Your task to perform on an android device: Open privacy settings Image 0: 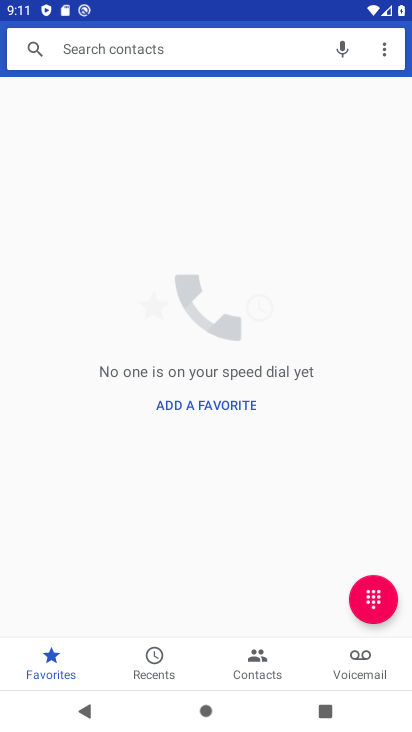
Step 0: press back button
Your task to perform on an android device: Open privacy settings Image 1: 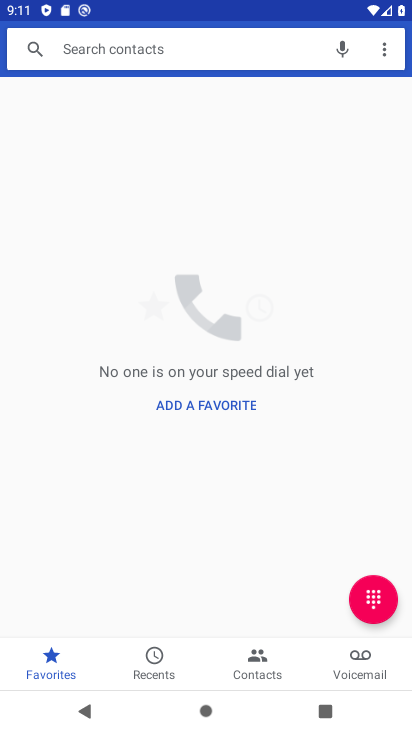
Step 1: press back button
Your task to perform on an android device: Open privacy settings Image 2: 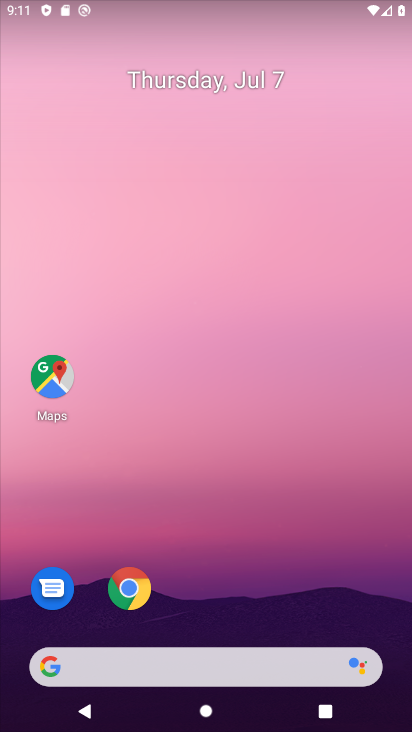
Step 2: drag from (249, 588) to (208, 279)
Your task to perform on an android device: Open privacy settings Image 3: 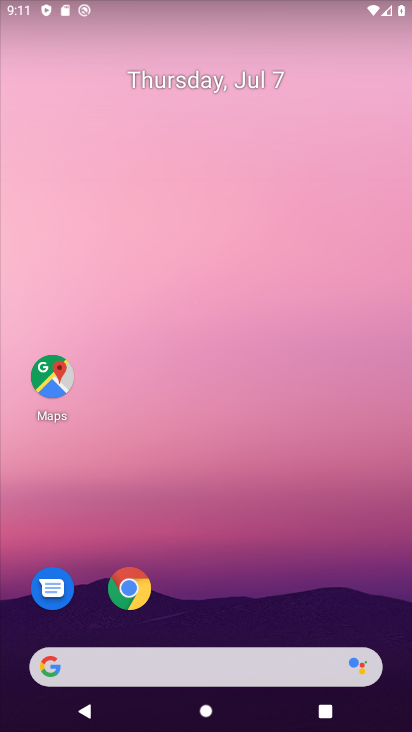
Step 3: drag from (245, 721) to (190, 308)
Your task to perform on an android device: Open privacy settings Image 4: 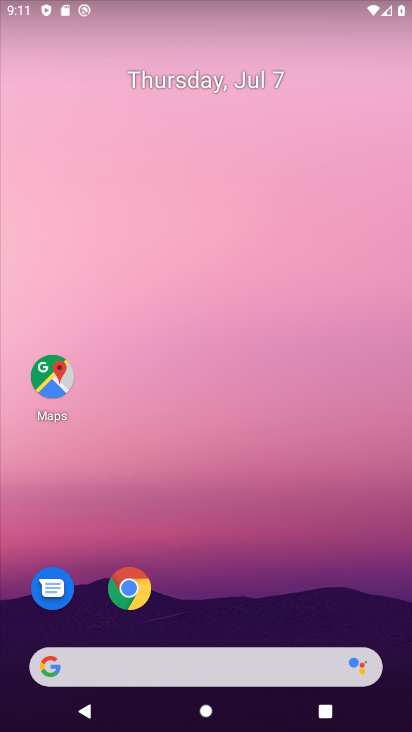
Step 4: drag from (271, 585) to (238, 191)
Your task to perform on an android device: Open privacy settings Image 5: 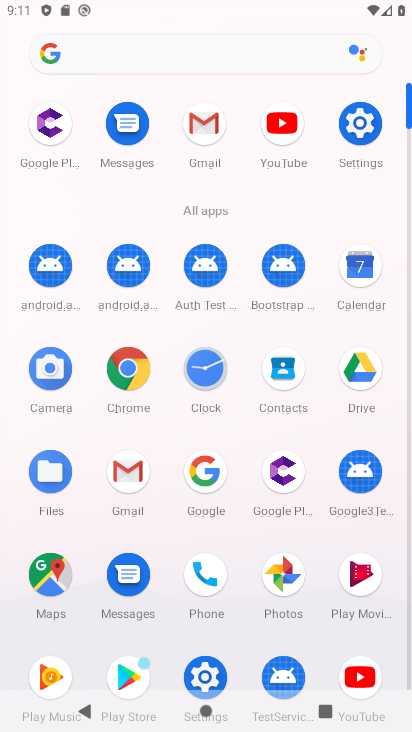
Step 5: click (357, 127)
Your task to perform on an android device: Open privacy settings Image 6: 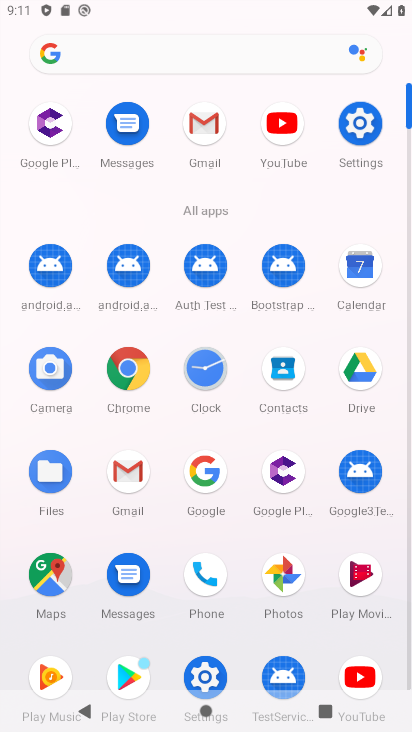
Step 6: click (359, 126)
Your task to perform on an android device: Open privacy settings Image 7: 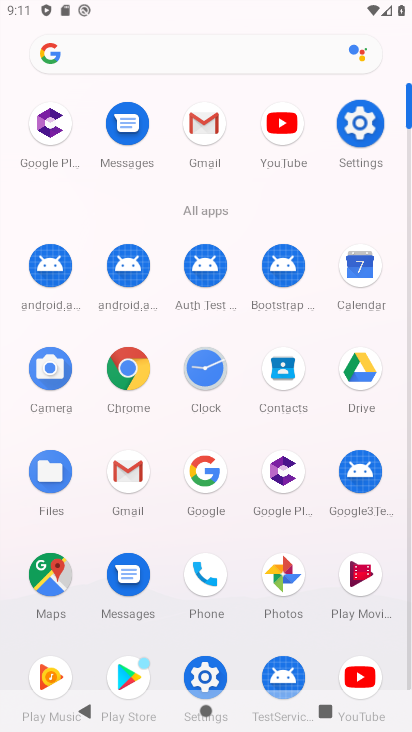
Step 7: click (359, 126)
Your task to perform on an android device: Open privacy settings Image 8: 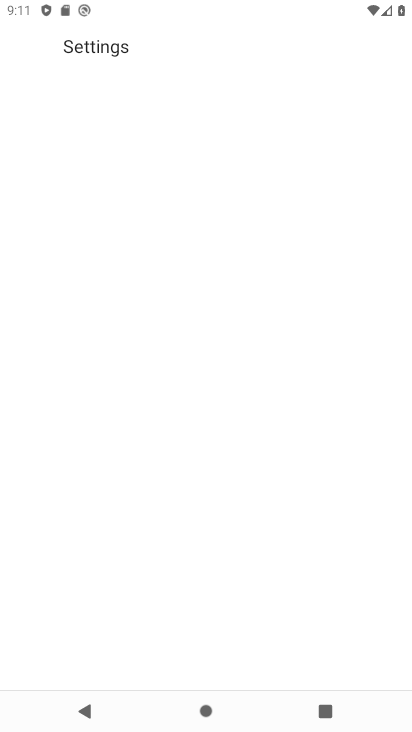
Step 8: click (360, 125)
Your task to perform on an android device: Open privacy settings Image 9: 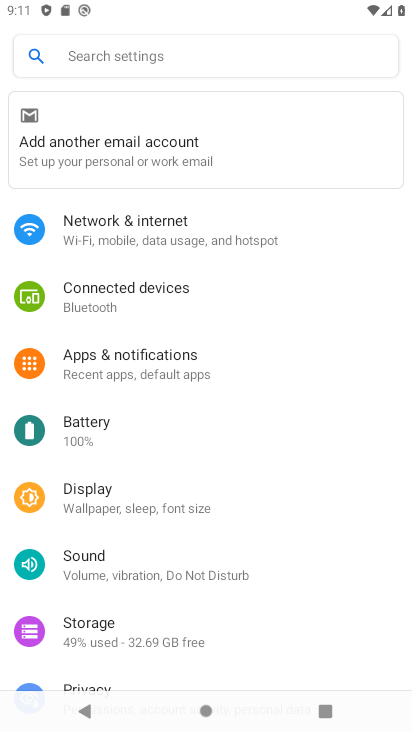
Step 9: drag from (168, 539) to (168, 321)
Your task to perform on an android device: Open privacy settings Image 10: 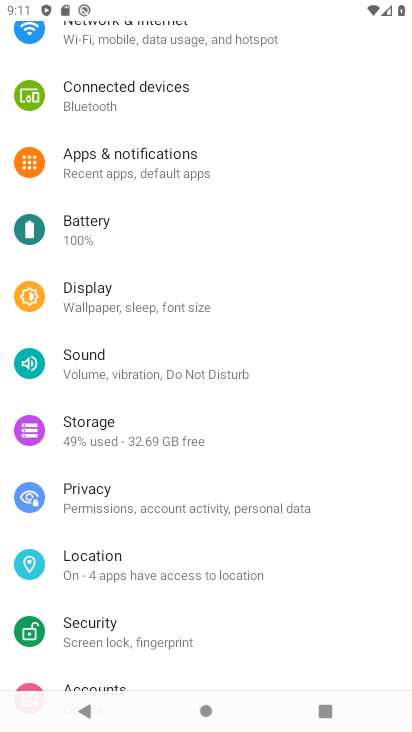
Step 10: click (97, 490)
Your task to perform on an android device: Open privacy settings Image 11: 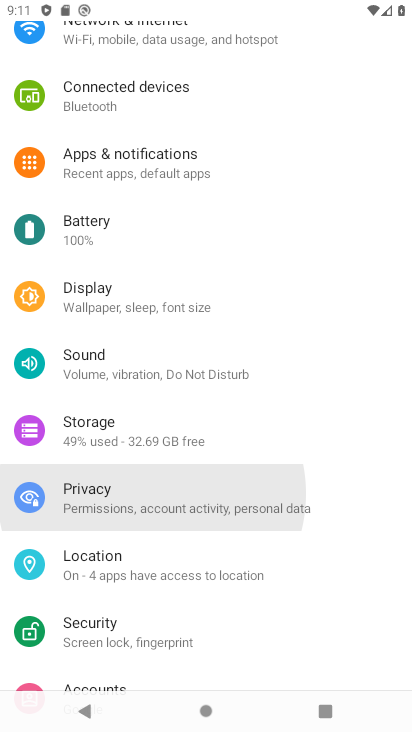
Step 11: click (104, 500)
Your task to perform on an android device: Open privacy settings Image 12: 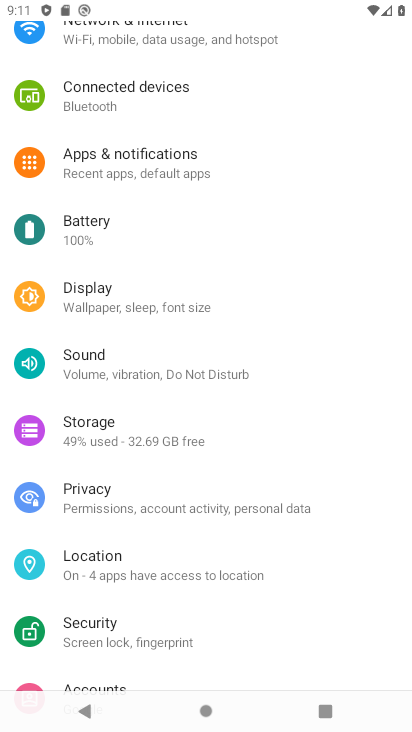
Step 12: click (106, 501)
Your task to perform on an android device: Open privacy settings Image 13: 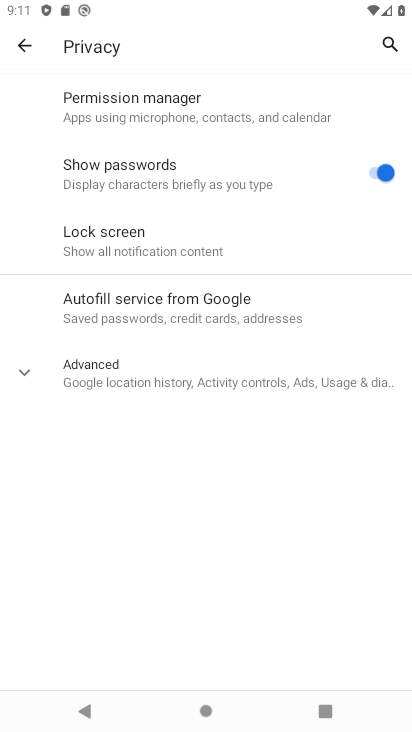
Step 13: click (29, 44)
Your task to perform on an android device: Open privacy settings Image 14: 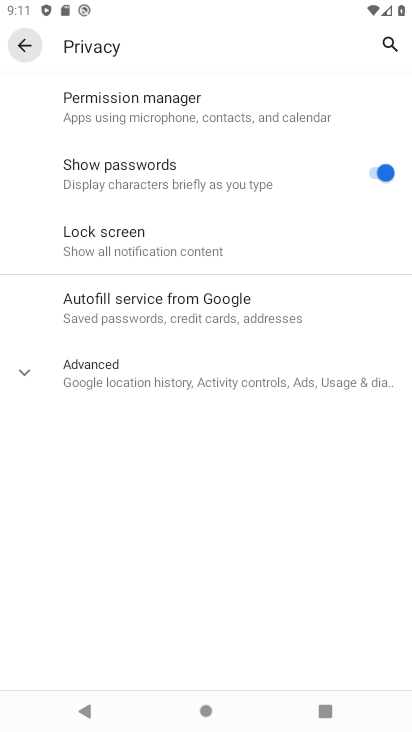
Step 14: click (29, 43)
Your task to perform on an android device: Open privacy settings Image 15: 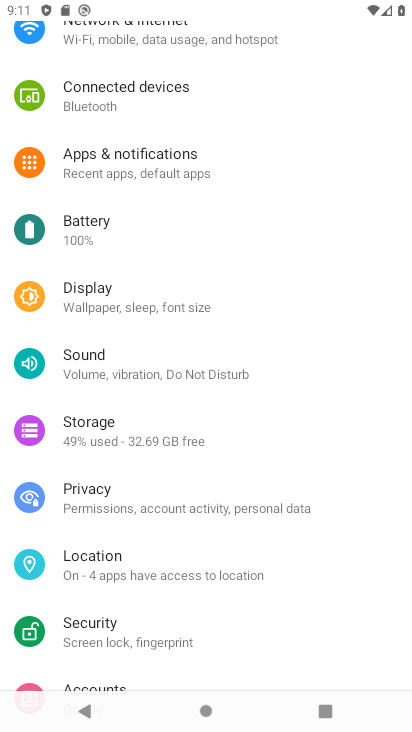
Step 15: click (125, 497)
Your task to perform on an android device: Open privacy settings Image 16: 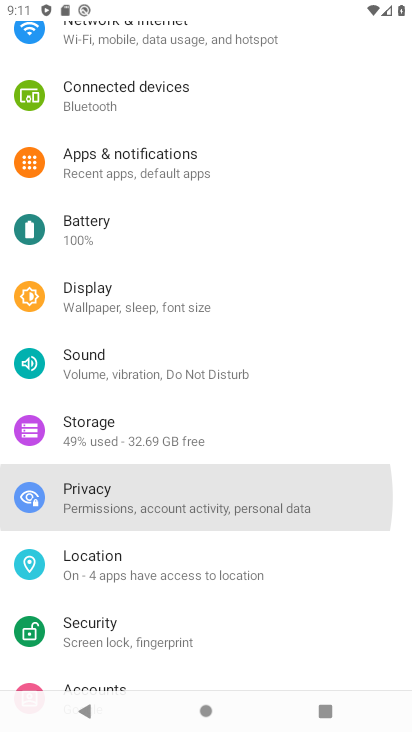
Step 16: click (118, 489)
Your task to perform on an android device: Open privacy settings Image 17: 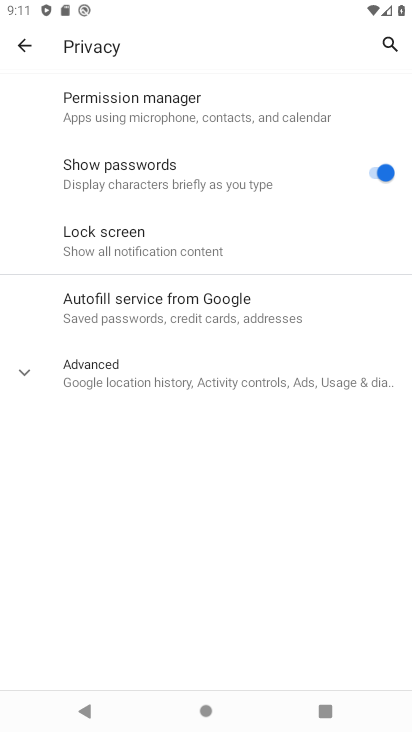
Step 17: task complete